Your task to perform on an android device: change notifications settings Image 0: 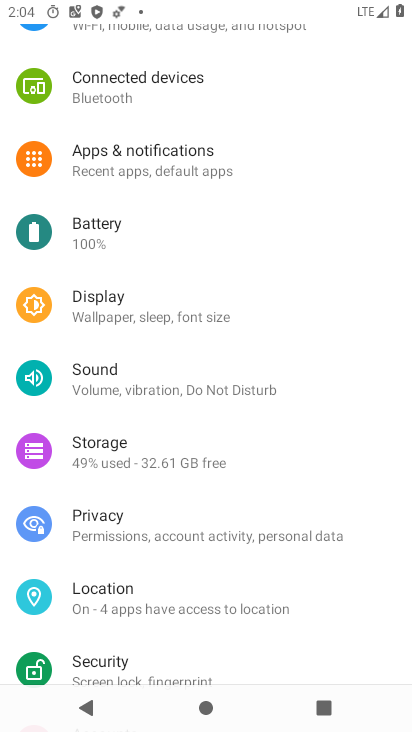
Step 0: click (178, 162)
Your task to perform on an android device: change notifications settings Image 1: 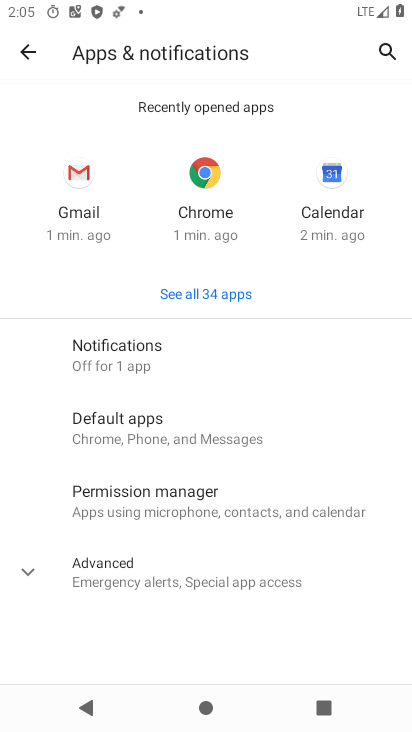
Step 1: click (176, 369)
Your task to perform on an android device: change notifications settings Image 2: 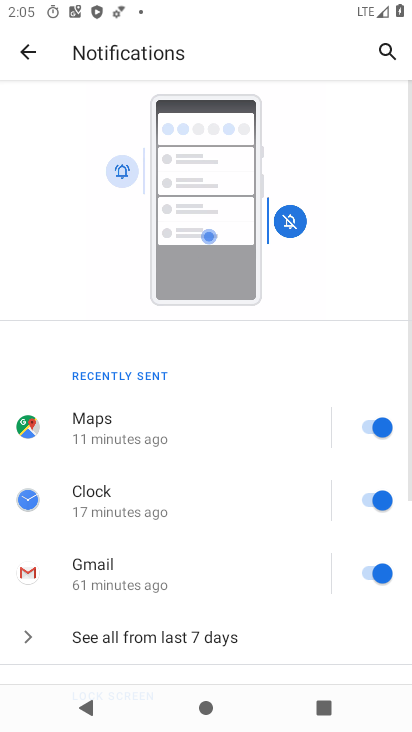
Step 2: drag from (176, 514) to (193, 458)
Your task to perform on an android device: change notifications settings Image 3: 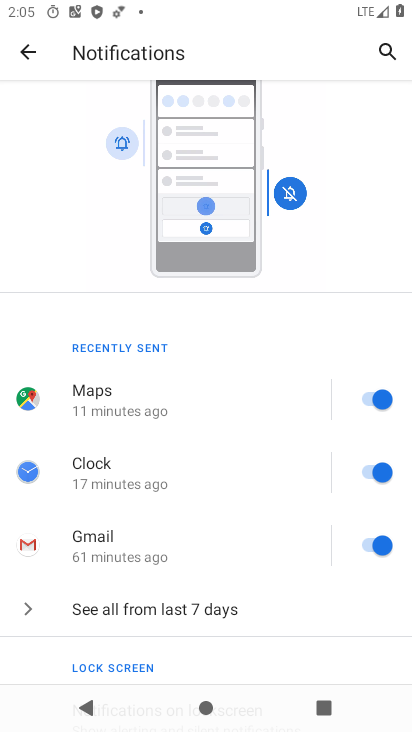
Step 3: click (170, 616)
Your task to perform on an android device: change notifications settings Image 4: 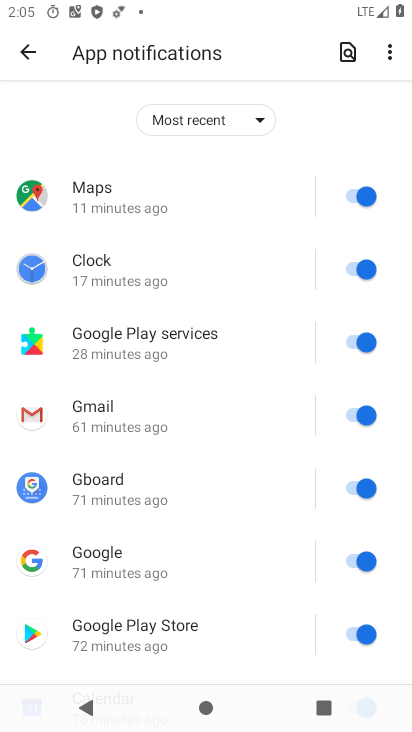
Step 4: click (363, 190)
Your task to perform on an android device: change notifications settings Image 5: 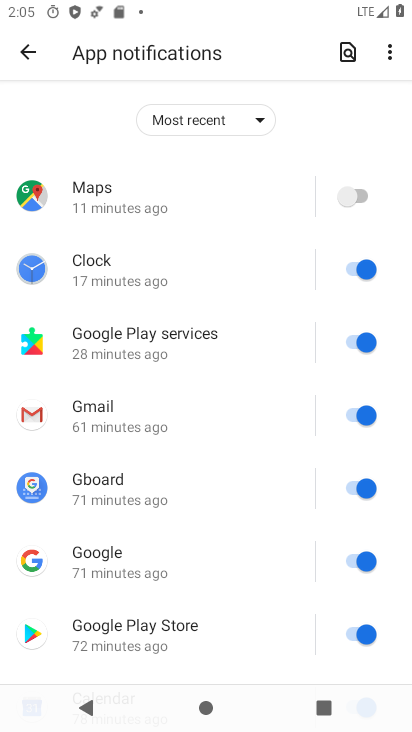
Step 5: click (352, 268)
Your task to perform on an android device: change notifications settings Image 6: 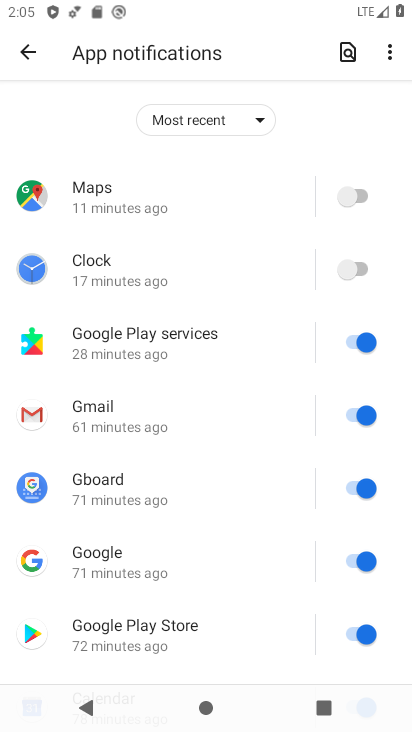
Step 6: click (357, 345)
Your task to perform on an android device: change notifications settings Image 7: 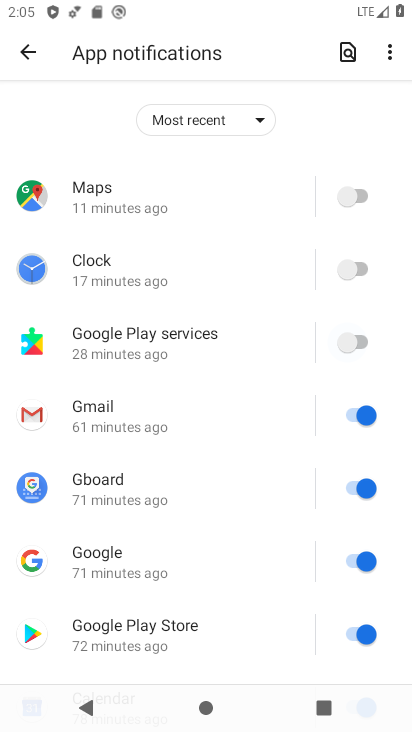
Step 7: click (351, 412)
Your task to perform on an android device: change notifications settings Image 8: 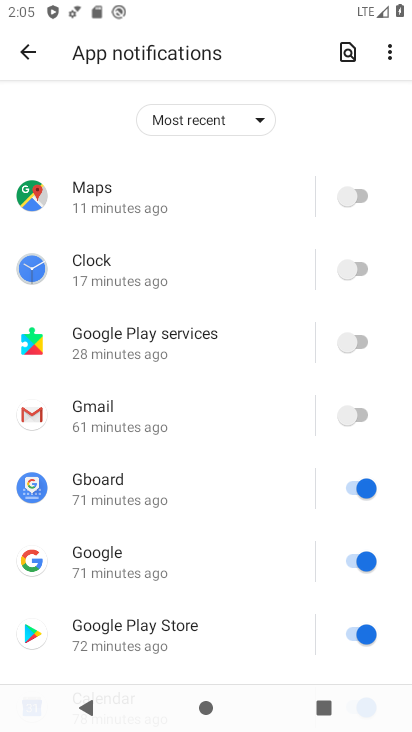
Step 8: click (363, 485)
Your task to perform on an android device: change notifications settings Image 9: 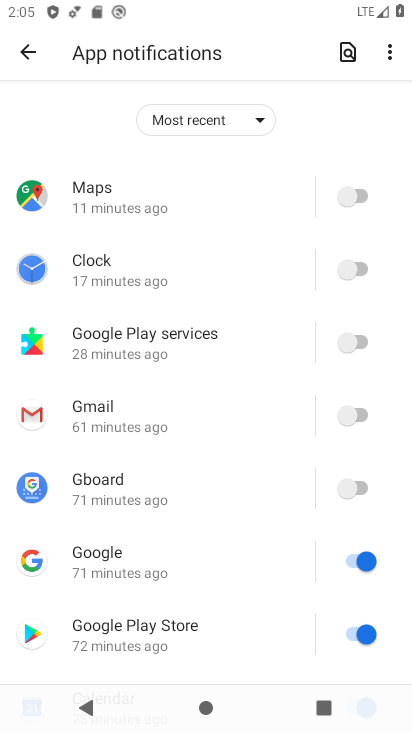
Step 9: click (359, 557)
Your task to perform on an android device: change notifications settings Image 10: 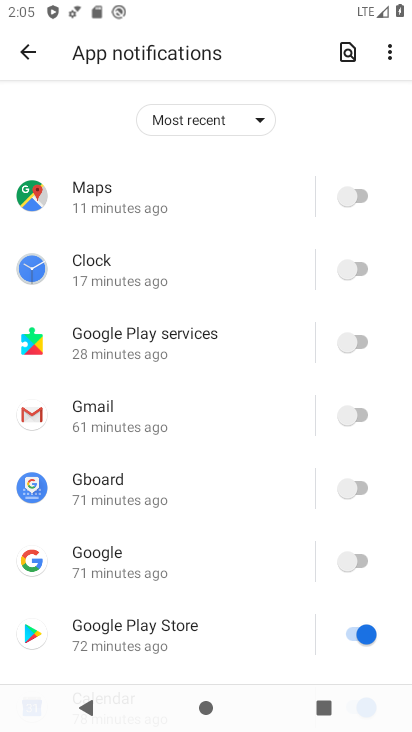
Step 10: click (341, 635)
Your task to perform on an android device: change notifications settings Image 11: 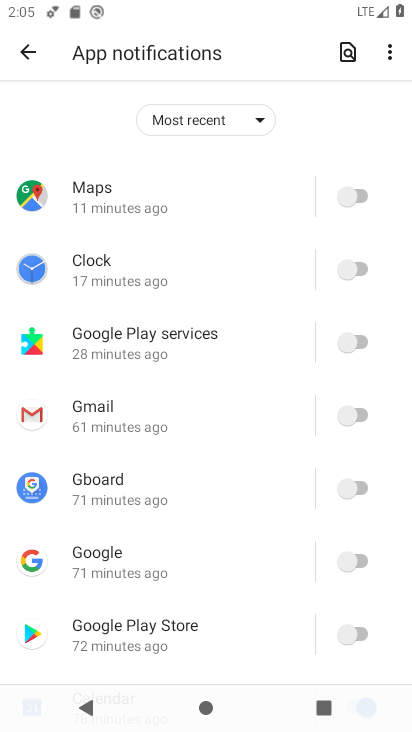
Step 11: drag from (334, 638) to (344, 313)
Your task to perform on an android device: change notifications settings Image 12: 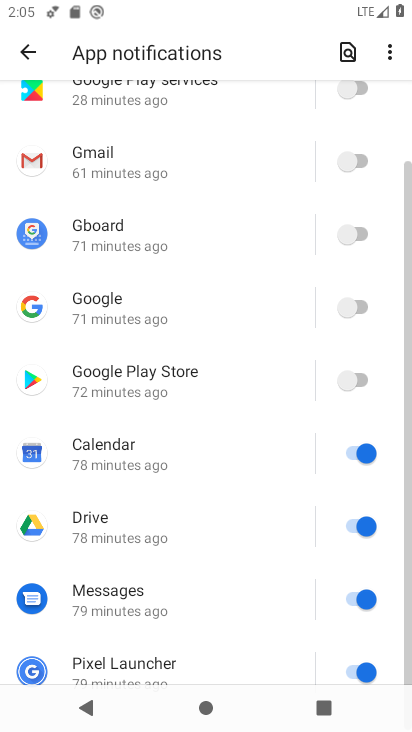
Step 12: click (349, 597)
Your task to perform on an android device: change notifications settings Image 13: 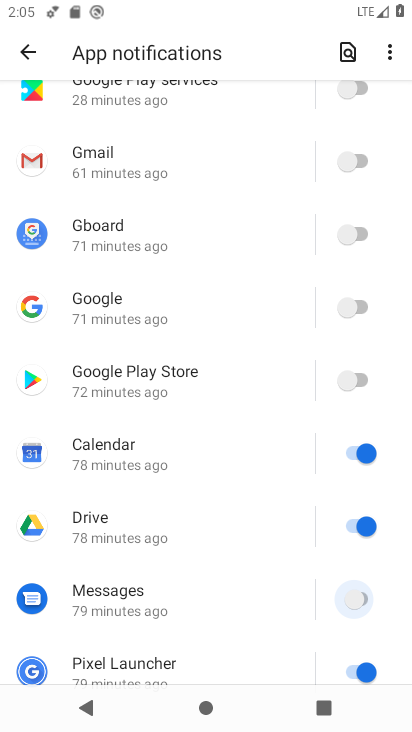
Step 13: click (339, 528)
Your task to perform on an android device: change notifications settings Image 14: 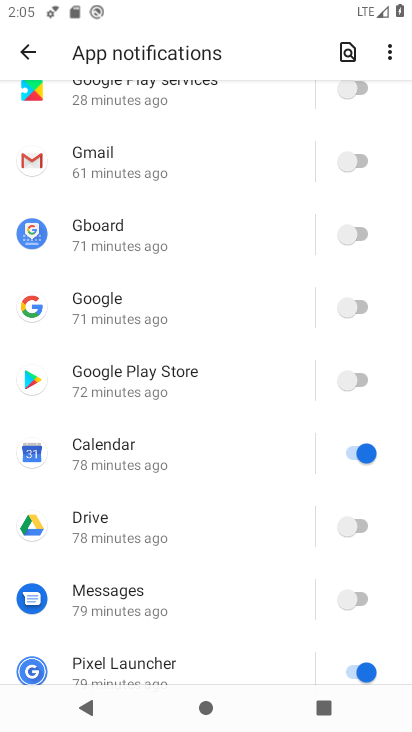
Step 14: click (345, 440)
Your task to perform on an android device: change notifications settings Image 15: 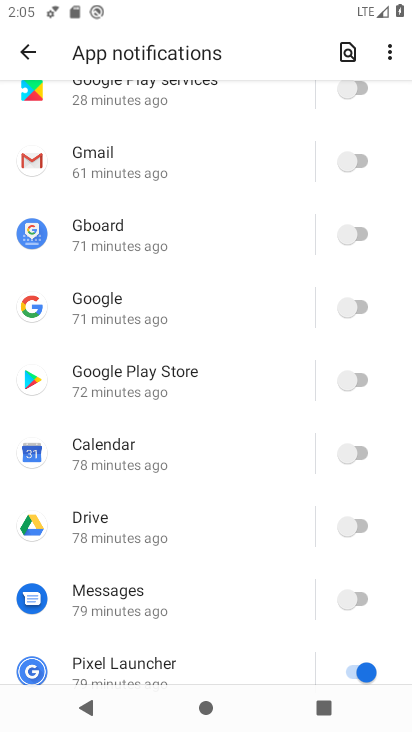
Step 15: click (344, 653)
Your task to perform on an android device: change notifications settings Image 16: 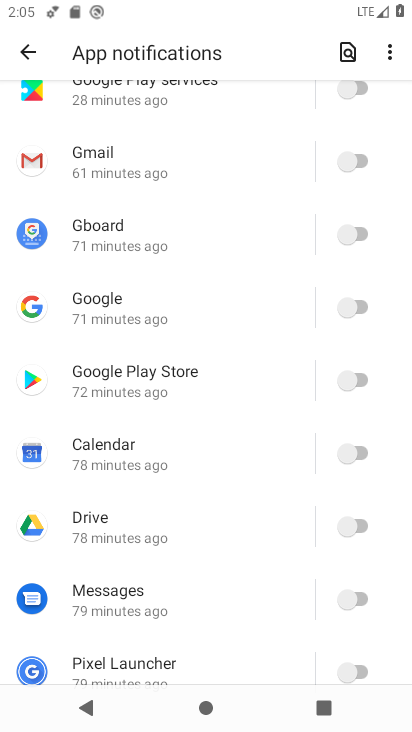
Step 16: task complete